Your task to perform on an android device: toggle wifi Image 0: 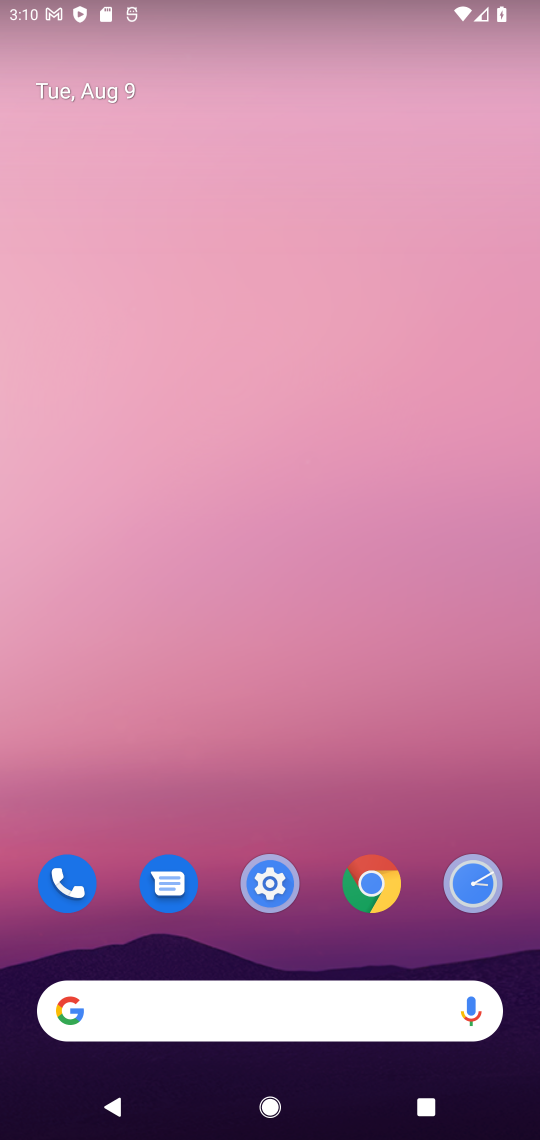
Step 0: drag from (404, 994) to (382, 246)
Your task to perform on an android device: toggle wifi Image 1: 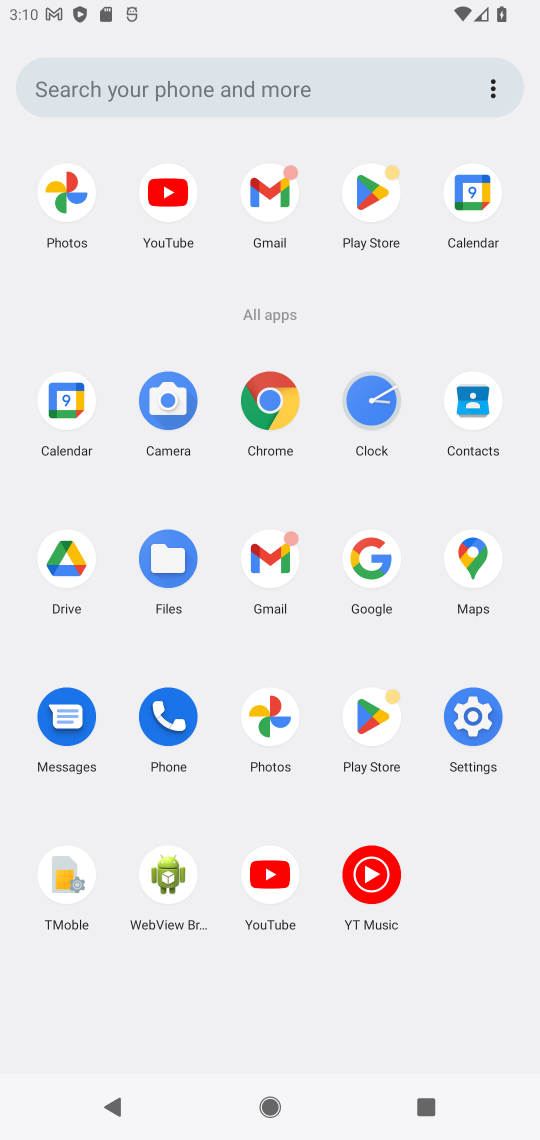
Step 1: click (472, 711)
Your task to perform on an android device: toggle wifi Image 2: 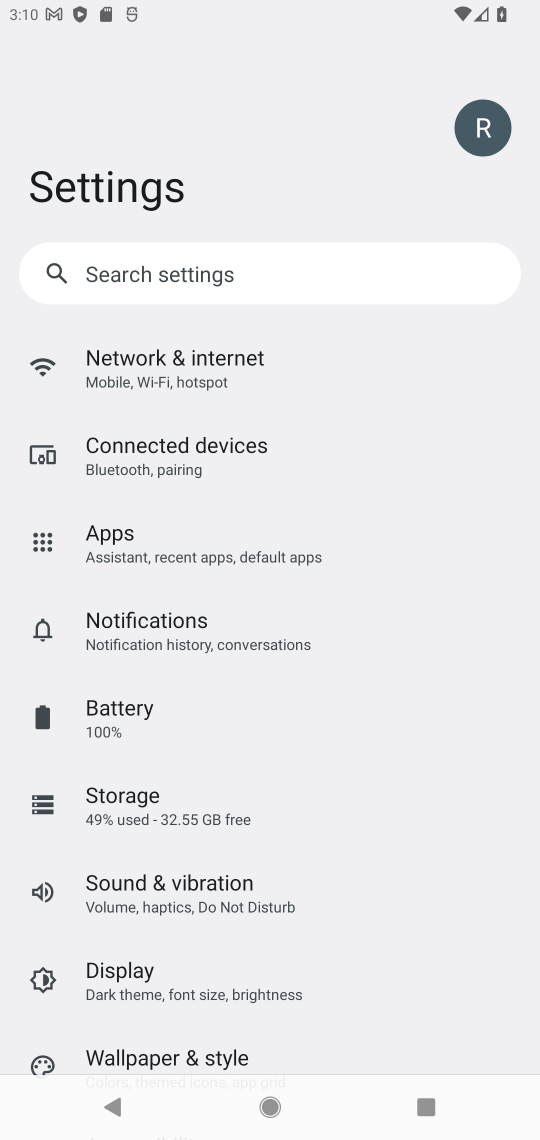
Step 2: click (183, 387)
Your task to perform on an android device: toggle wifi Image 3: 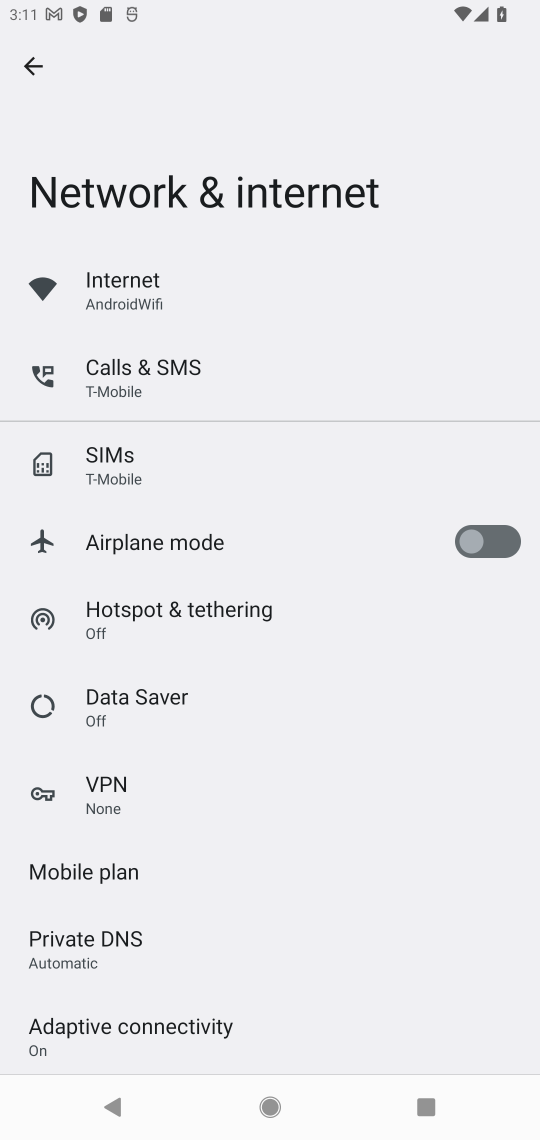
Step 3: task complete